Your task to perform on an android device: Toggle the flashlight Image 0: 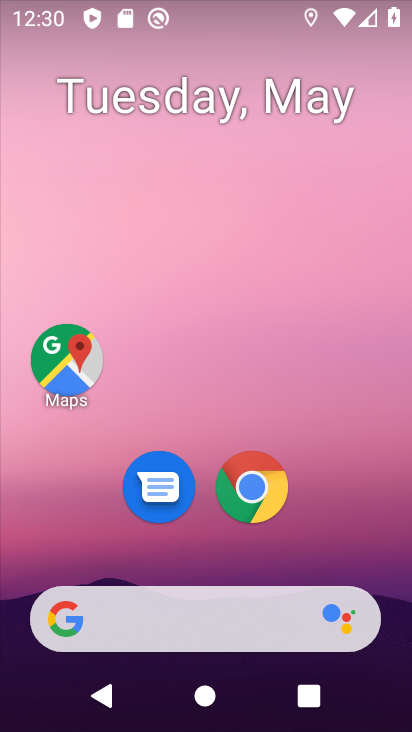
Step 0: press home button
Your task to perform on an android device: Toggle the flashlight Image 1: 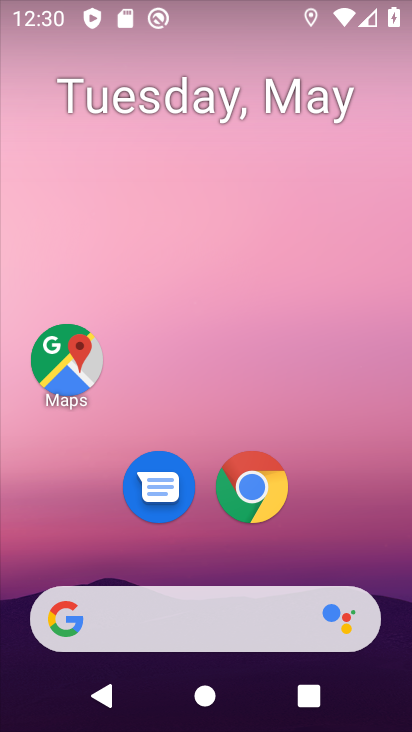
Step 1: drag from (330, 544) to (314, 98)
Your task to perform on an android device: Toggle the flashlight Image 2: 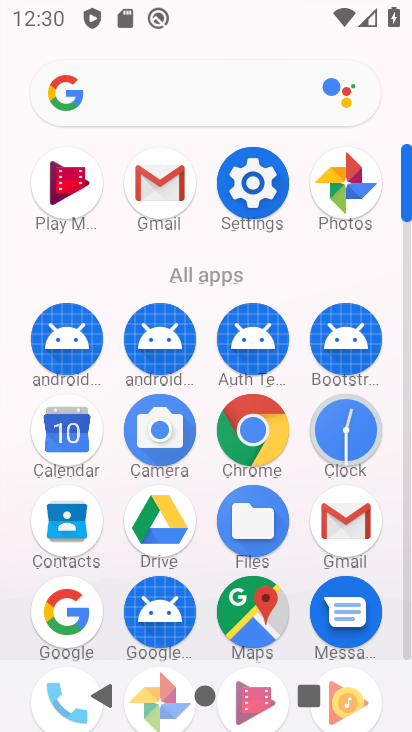
Step 2: click (242, 180)
Your task to perform on an android device: Toggle the flashlight Image 3: 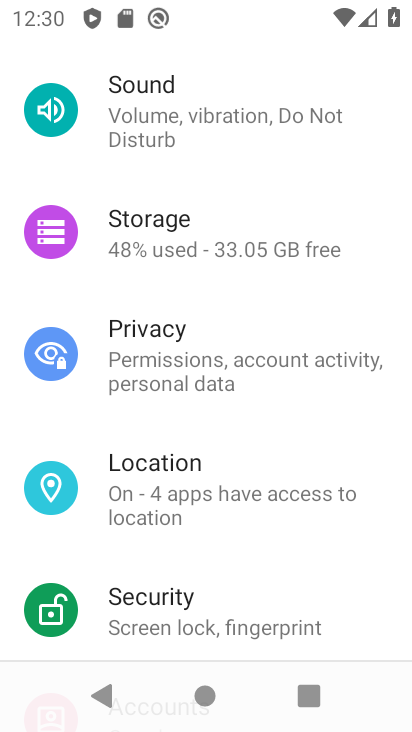
Step 3: drag from (257, 205) to (283, 532)
Your task to perform on an android device: Toggle the flashlight Image 4: 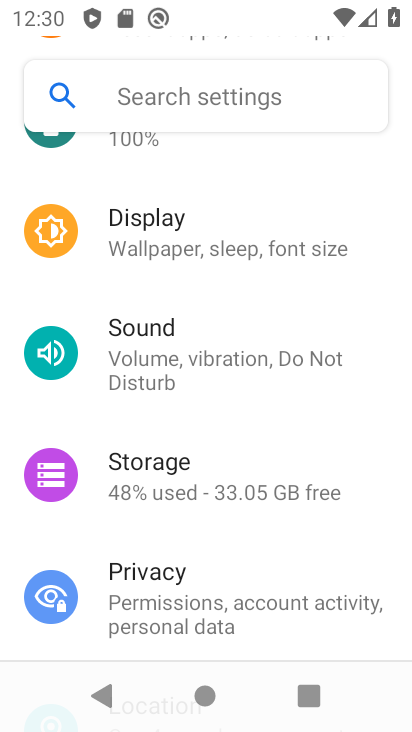
Step 4: drag from (300, 206) to (288, 353)
Your task to perform on an android device: Toggle the flashlight Image 5: 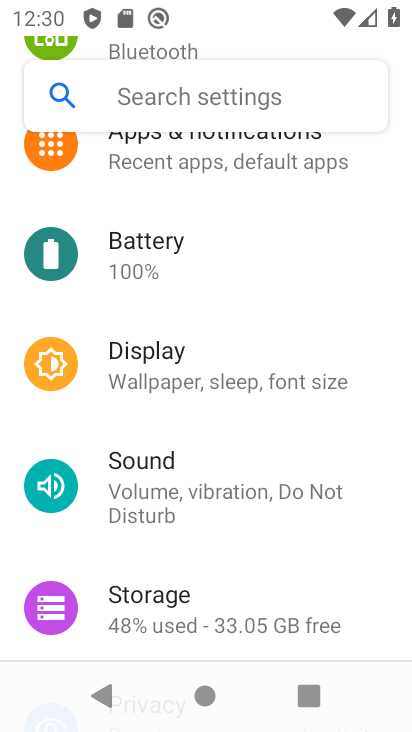
Step 5: drag from (266, 272) to (250, 499)
Your task to perform on an android device: Toggle the flashlight Image 6: 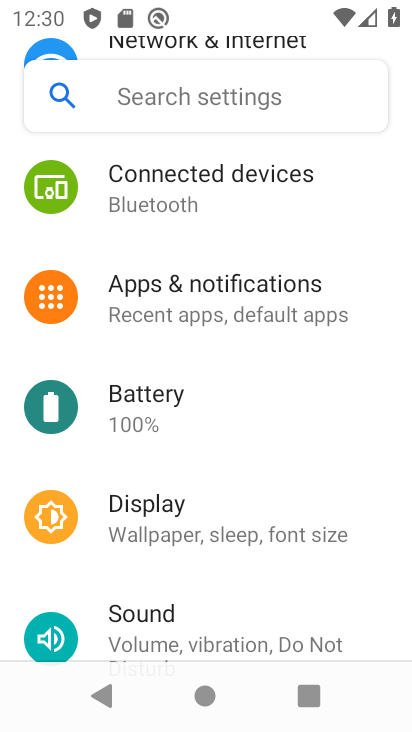
Step 6: click (222, 509)
Your task to perform on an android device: Toggle the flashlight Image 7: 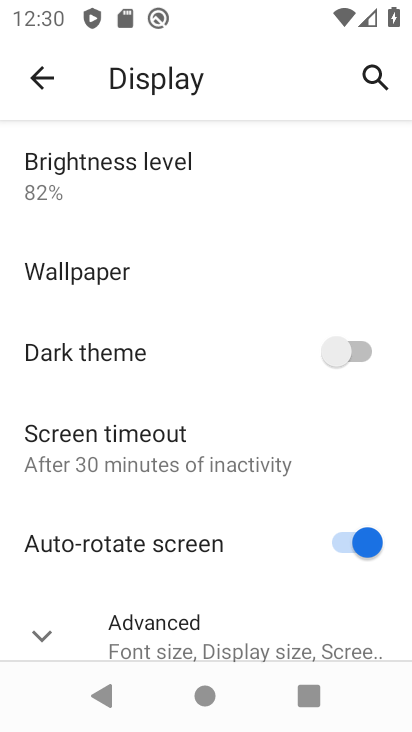
Step 7: drag from (219, 579) to (213, 302)
Your task to perform on an android device: Toggle the flashlight Image 8: 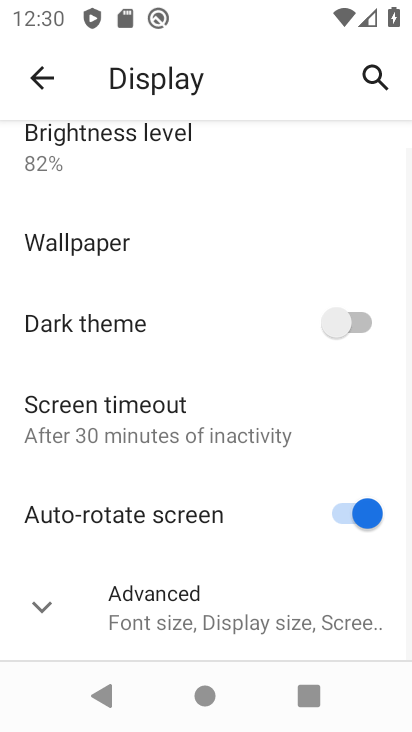
Step 8: click (222, 617)
Your task to perform on an android device: Toggle the flashlight Image 9: 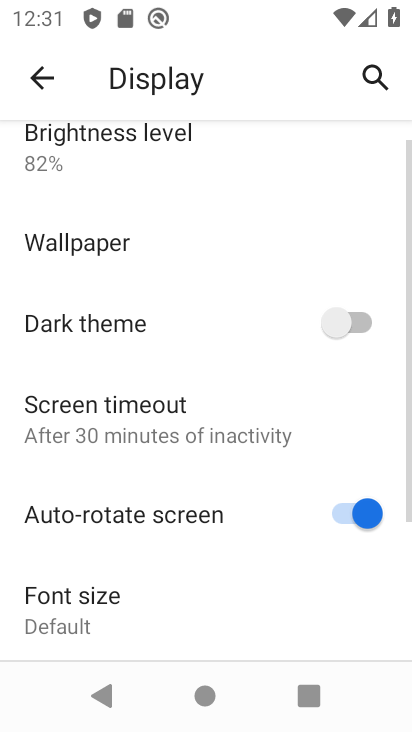
Step 9: task complete